Your task to perform on an android device: Is it going to rain tomorrow? Image 0: 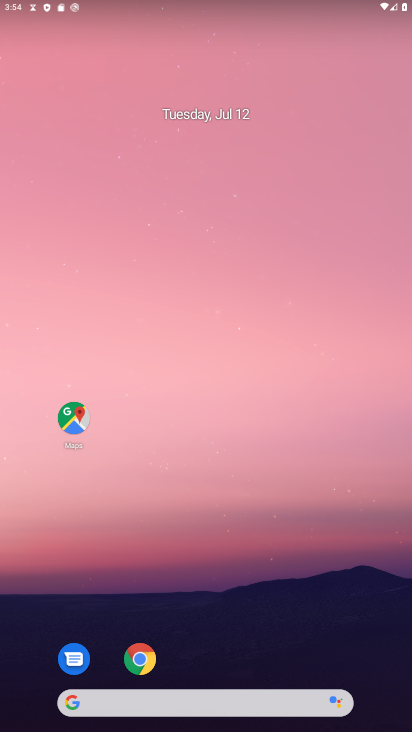
Step 0: press home button
Your task to perform on an android device: Is it going to rain tomorrow? Image 1: 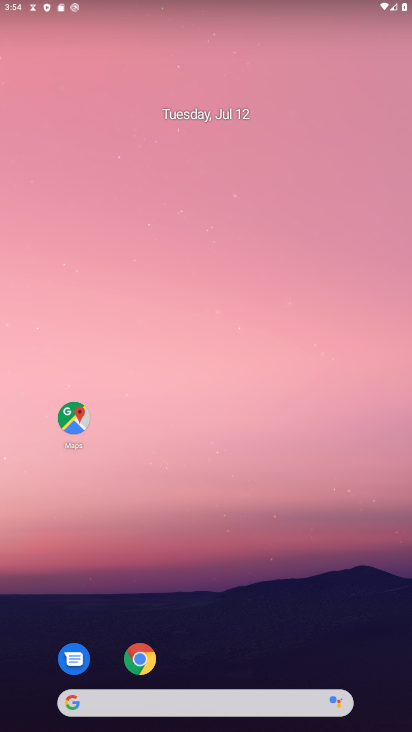
Step 1: press home button
Your task to perform on an android device: Is it going to rain tomorrow? Image 2: 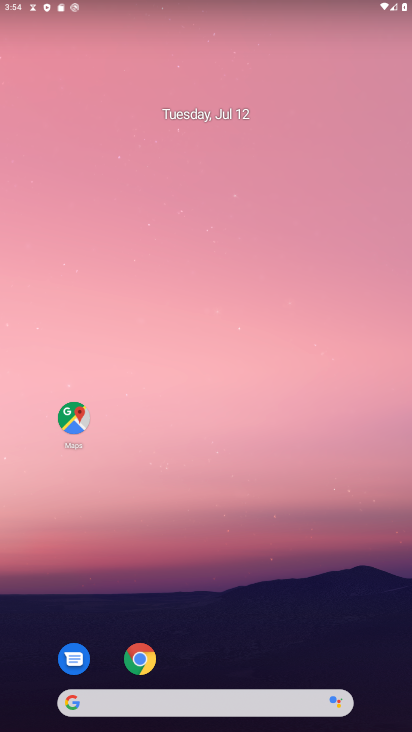
Step 2: click (178, 698)
Your task to perform on an android device: Is it going to rain tomorrow? Image 3: 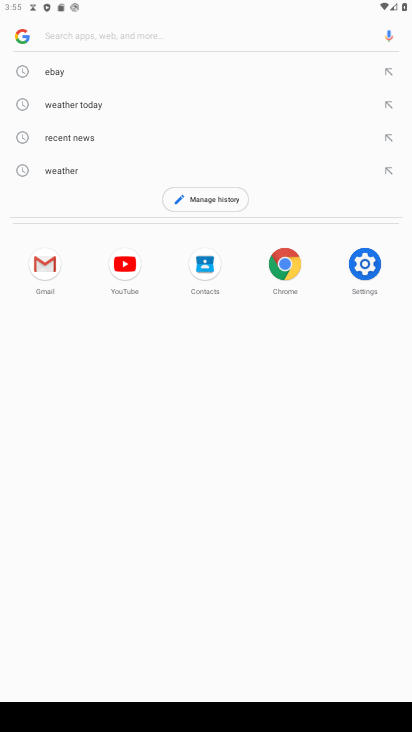
Step 3: type "Is it going to rain tomorrow?"
Your task to perform on an android device: Is it going to rain tomorrow? Image 4: 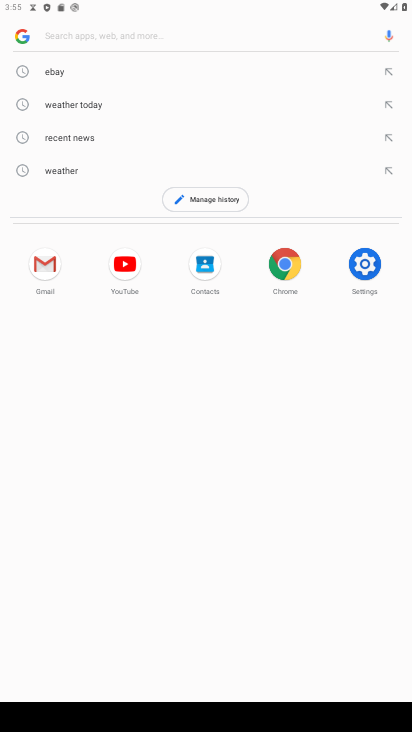
Step 4: click (112, 35)
Your task to perform on an android device: Is it going to rain tomorrow? Image 5: 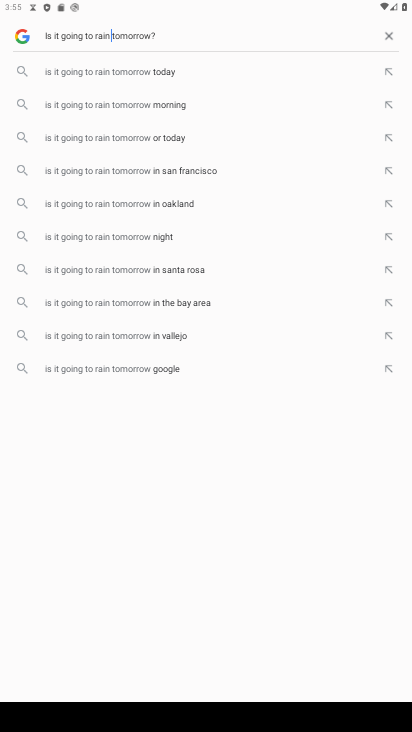
Step 5: press enter
Your task to perform on an android device: Is it going to rain tomorrow? Image 6: 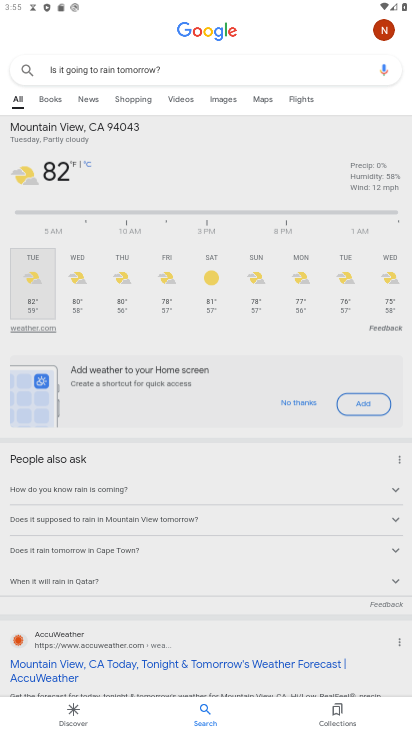
Step 6: task complete